Your task to perform on an android device: Turn off the flashlight Image 0: 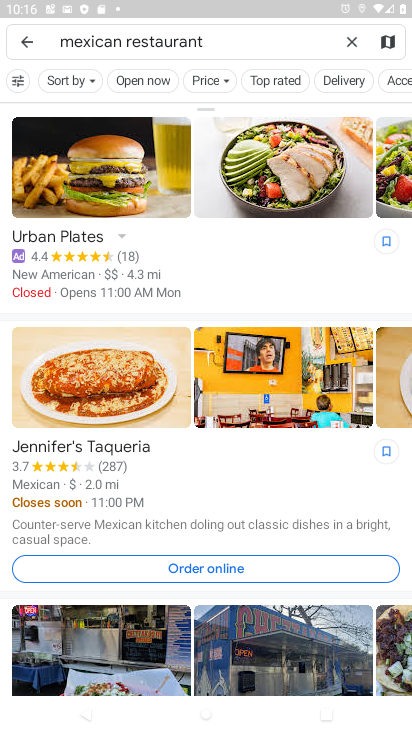
Step 0: press home button
Your task to perform on an android device: Turn off the flashlight Image 1: 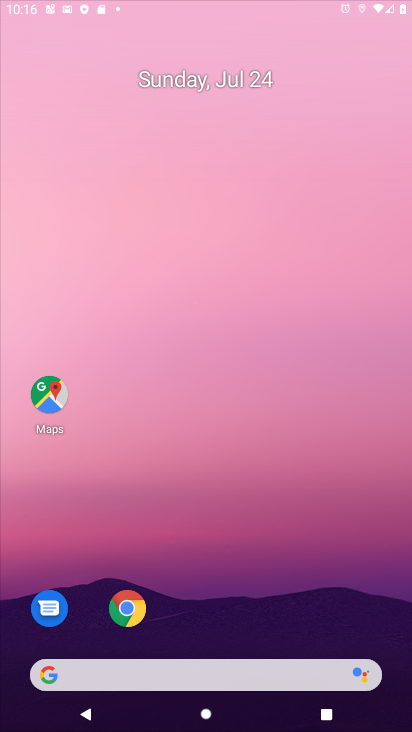
Step 1: drag from (204, 626) to (357, 11)
Your task to perform on an android device: Turn off the flashlight Image 2: 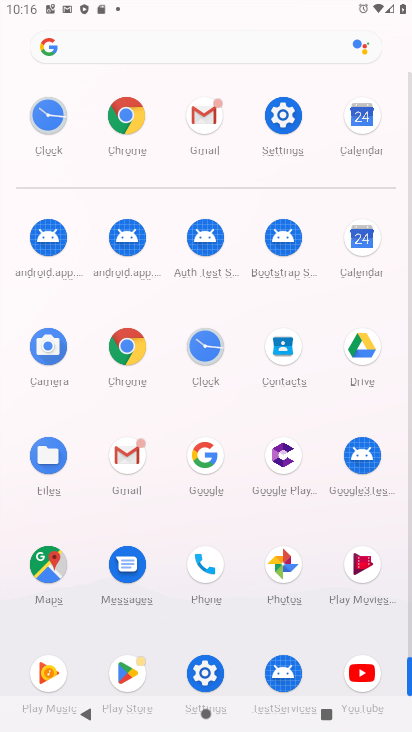
Step 2: click (278, 108)
Your task to perform on an android device: Turn off the flashlight Image 3: 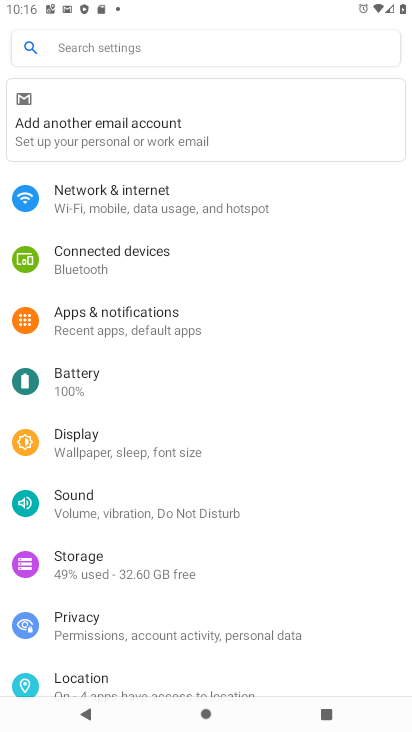
Step 3: click (109, 44)
Your task to perform on an android device: Turn off the flashlight Image 4: 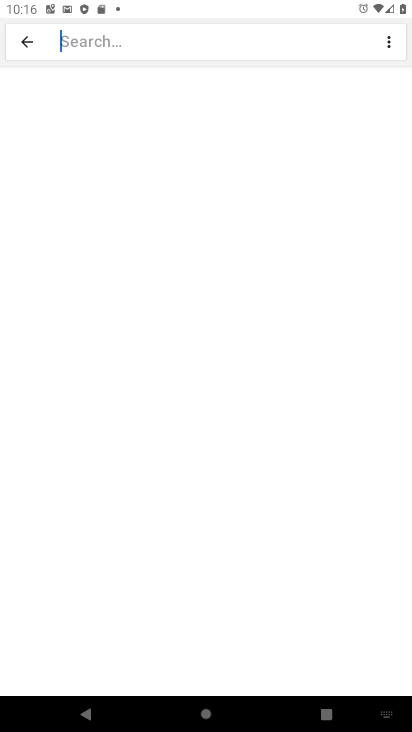
Step 4: type "flashlight"
Your task to perform on an android device: Turn off the flashlight Image 5: 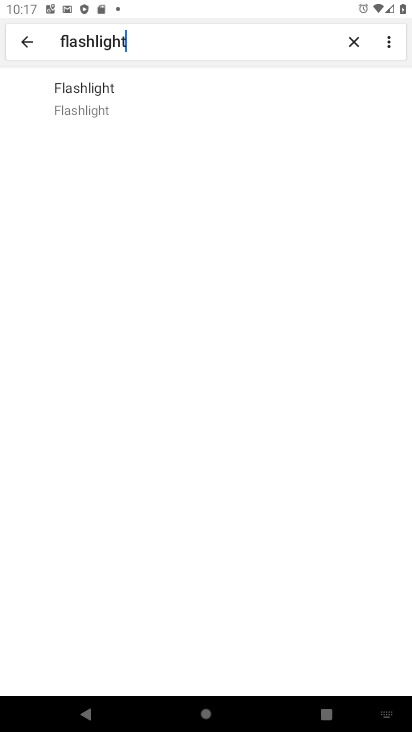
Step 5: click (132, 97)
Your task to perform on an android device: Turn off the flashlight Image 6: 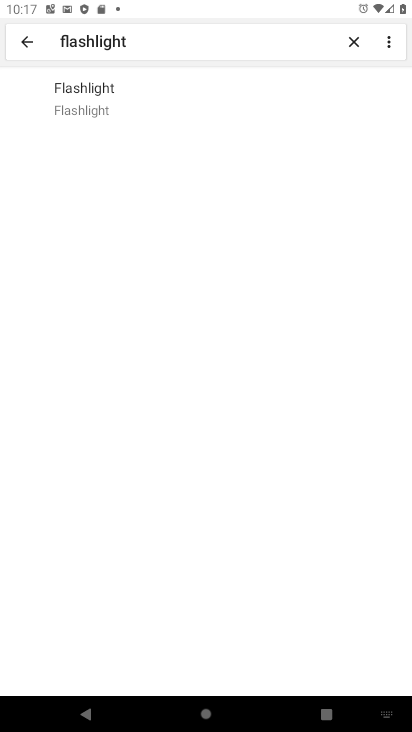
Step 6: click (117, 97)
Your task to perform on an android device: Turn off the flashlight Image 7: 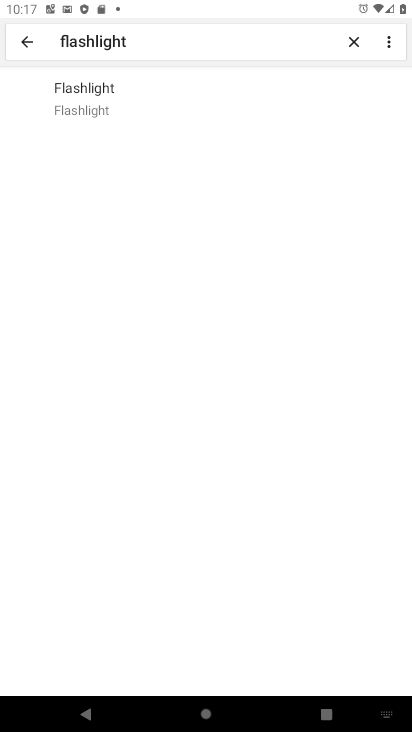
Step 7: task complete